Your task to perform on an android device: Add "acer nitro" to the cart on walmart.com, then select checkout. Image 0: 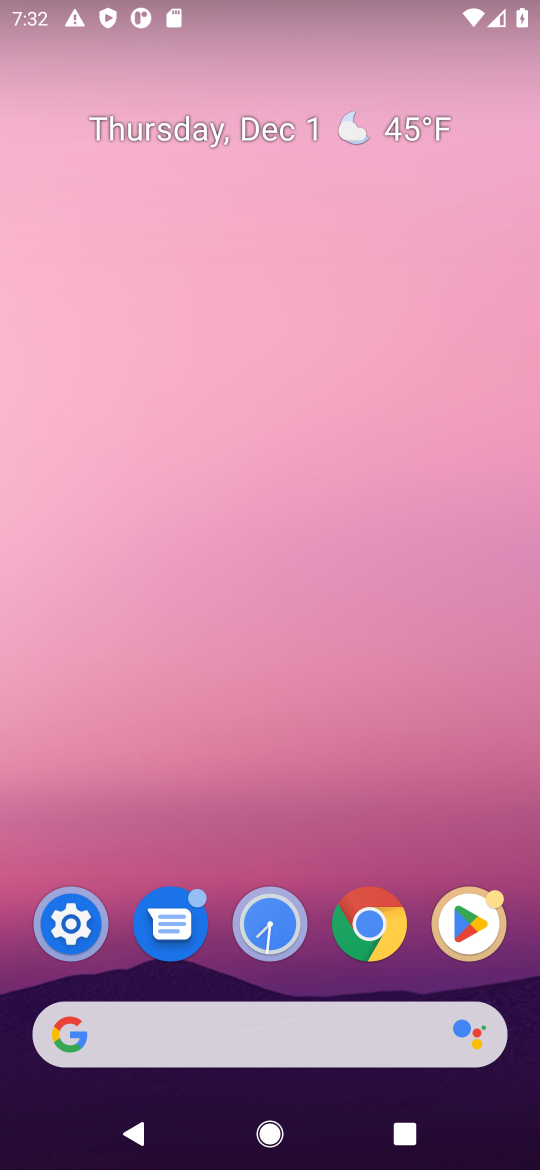
Step 0: click (271, 1041)
Your task to perform on an android device: Add "acer nitro" to the cart on walmart.com, then select checkout. Image 1: 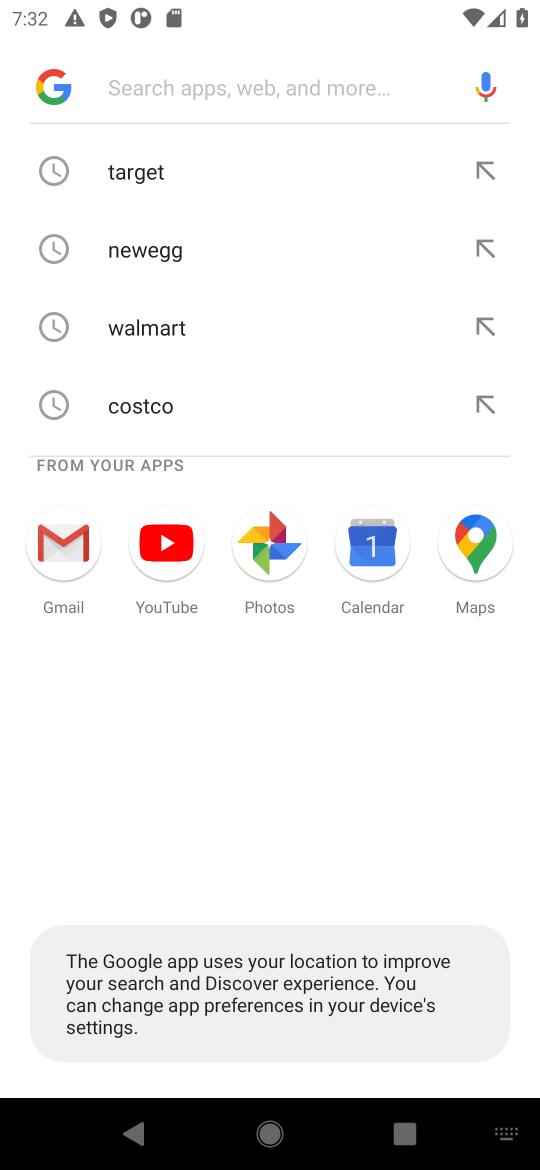
Step 1: type "walmart"
Your task to perform on an android device: Add "acer nitro" to the cart on walmart.com, then select checkout. Image 2: 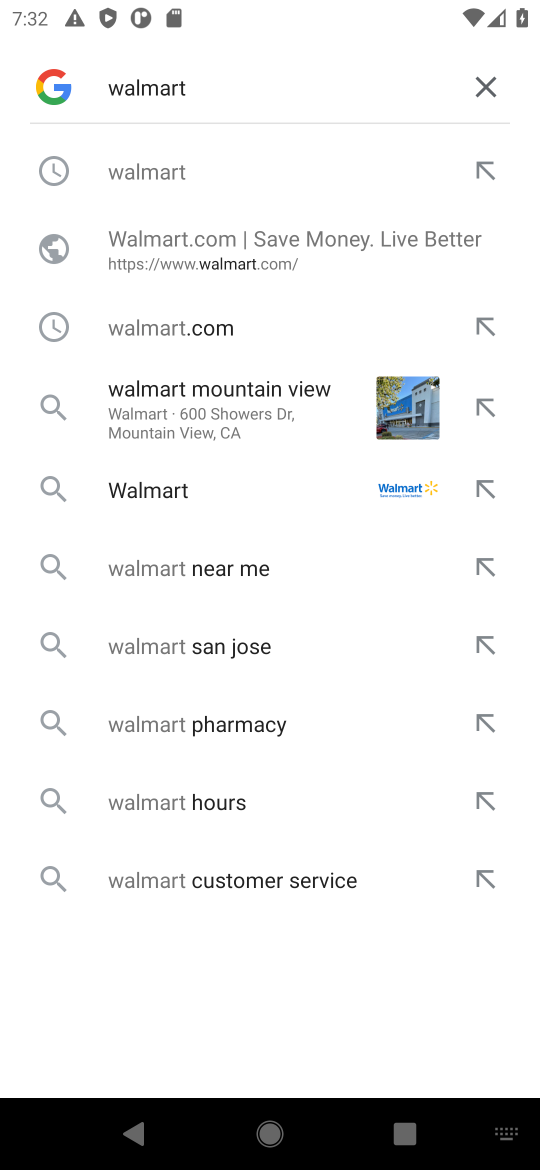
Step 2: click (136, 411)
Your task to perform on an android device: Add "acer nitro" to the cart on walmart.com, then select checkout. Image 3: 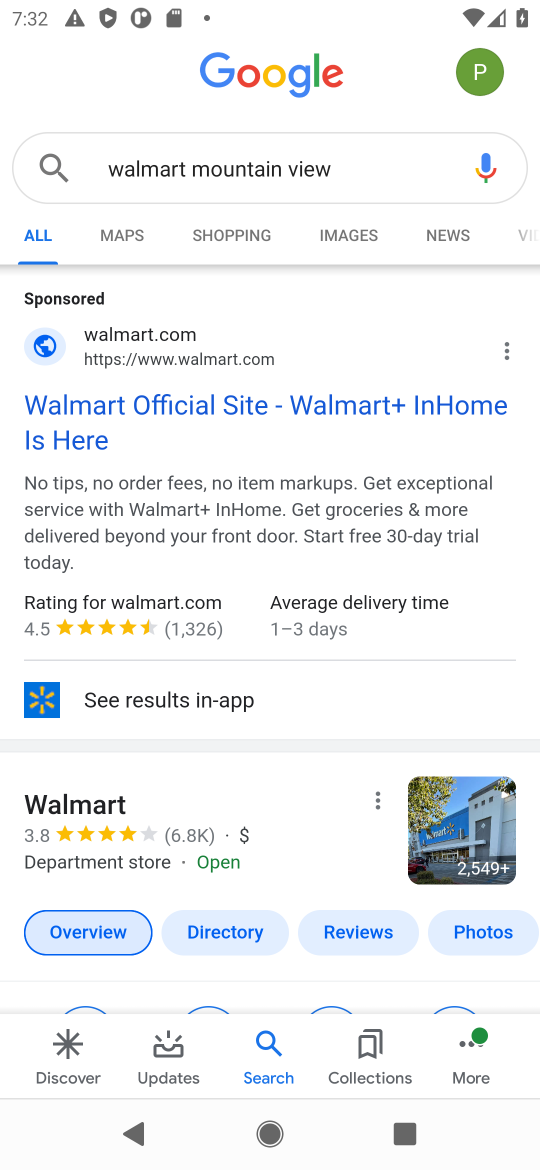
Step 3: click (192, 393)
Your task to perform on an android device: Add "acer nitro" to the cart on walmart.com, then select checkout. Image 4: 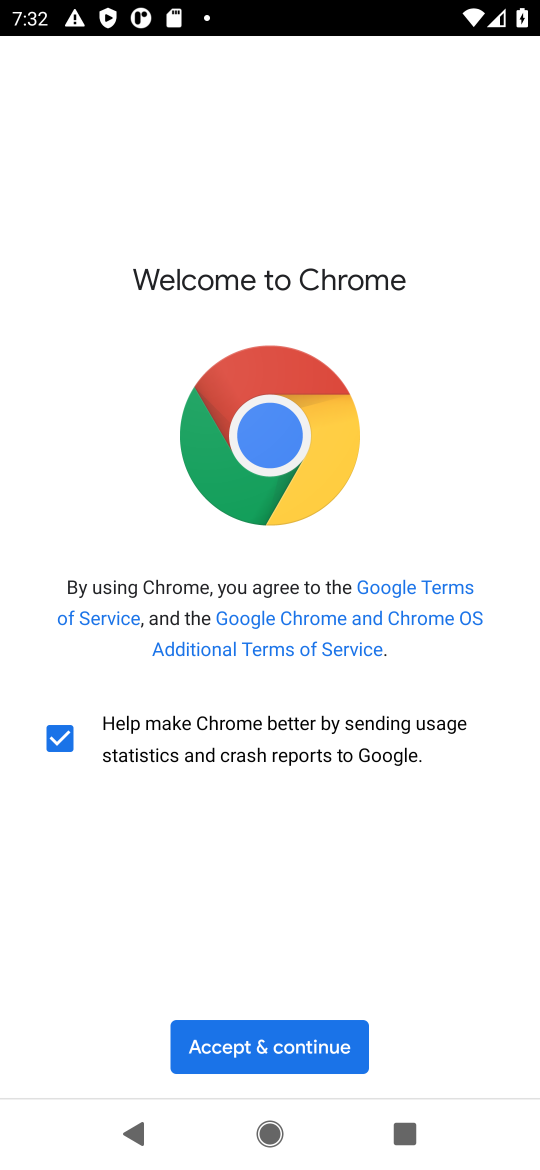
Step 4: click (196, 1043)
Your task to perform on an android device: Add "acer nitro" to the cart on walmart.com, then select checkout. Image 5: 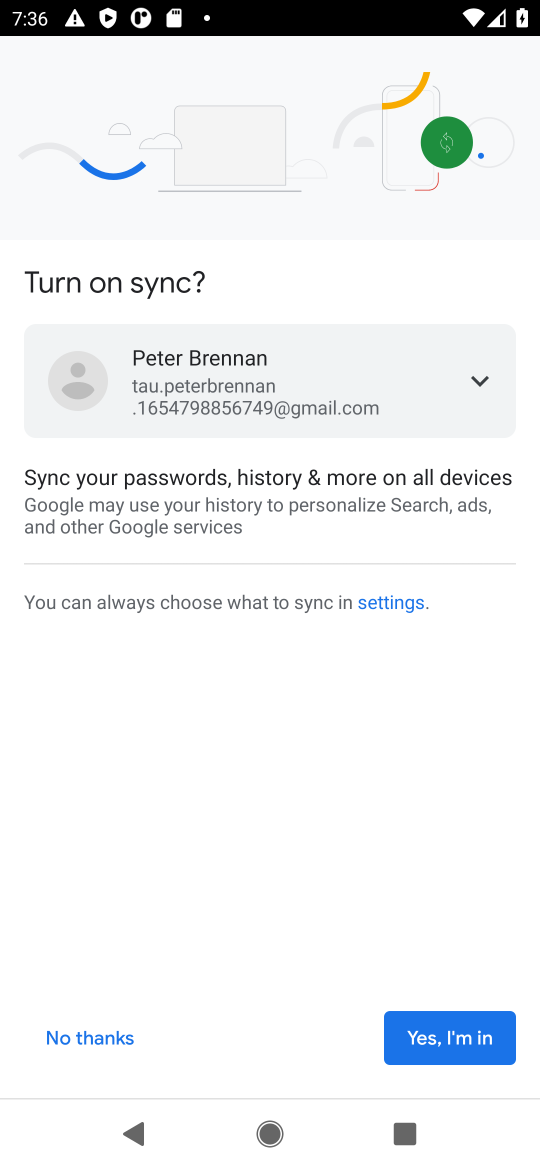
Step 5: click (456, 1026)
Your task to perform on an android device: Add "acer nitro" to the cart on walmart.com, then select checkout. Image 6: 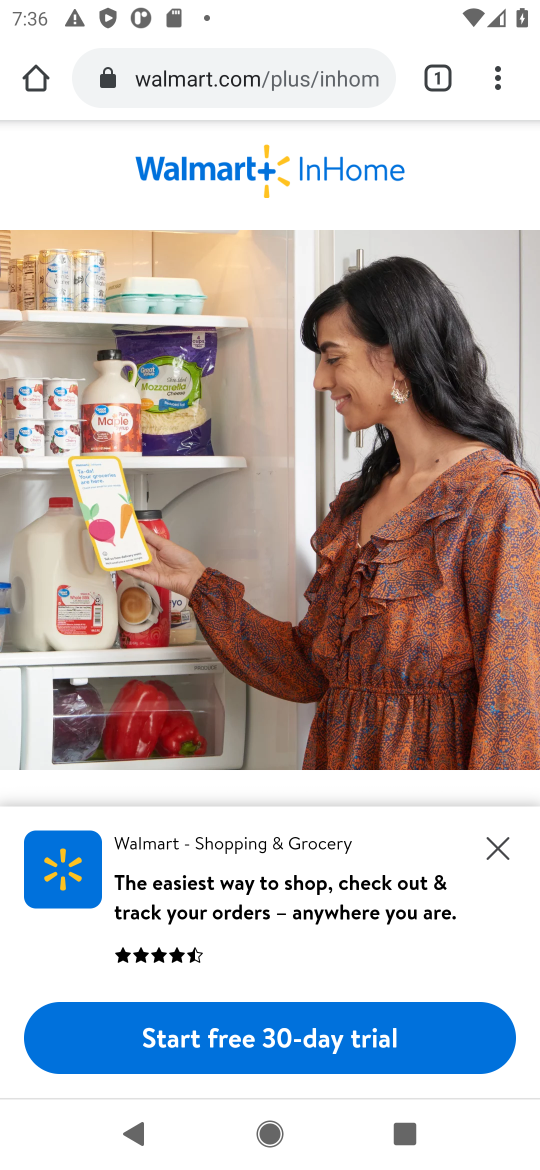
Step 6: click (487, 842)
Your task to perform on an android device: Add "acer nitro" to the cart on walmart.com, then select checkout. Image 7: 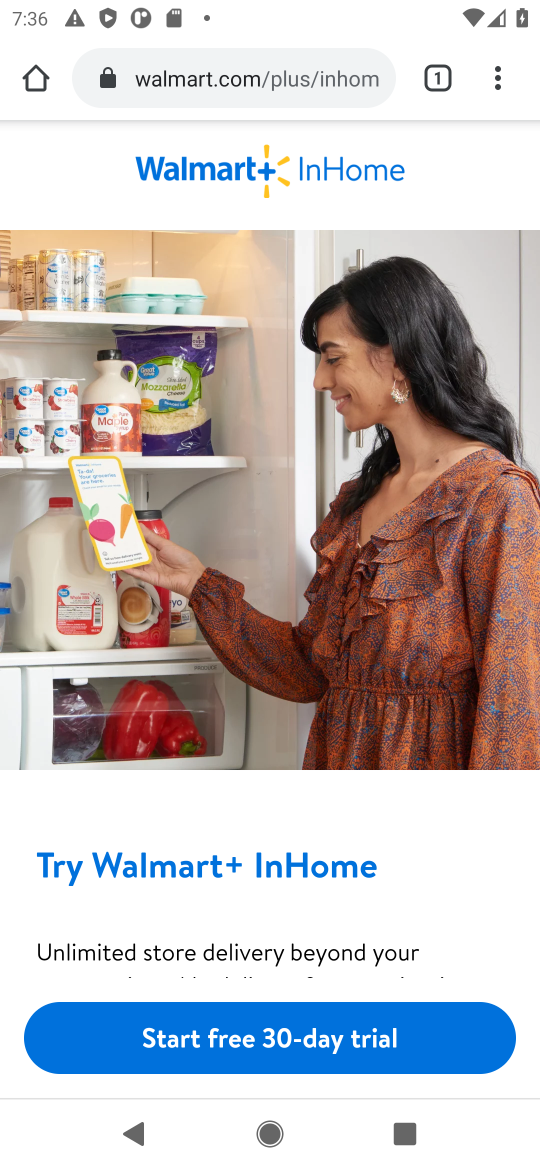
Step 7: task complete